Your task to perform on an android device: Show me recent news Image 0: 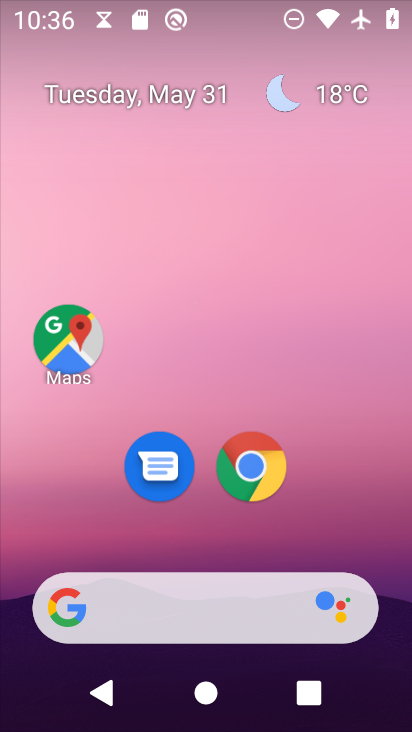
Step 0: drag from (338, 493) to (173, 8)
Your task to perform on an android device: Show me recent news Image 1: 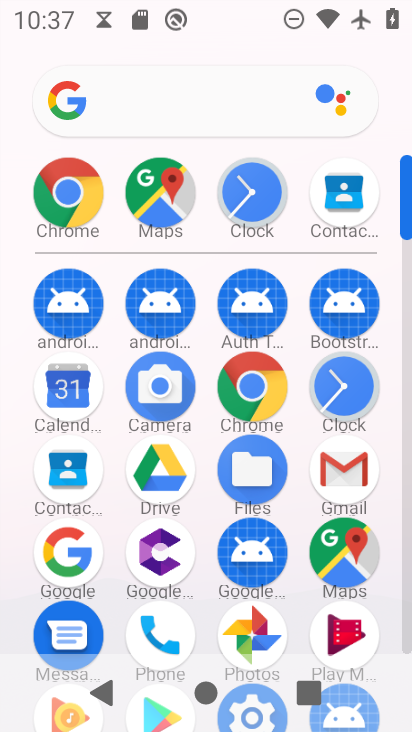
Step 1: drag from (16, 515) to (22, 223)
Your task to perform on an android device: Show me recent news Image 2: 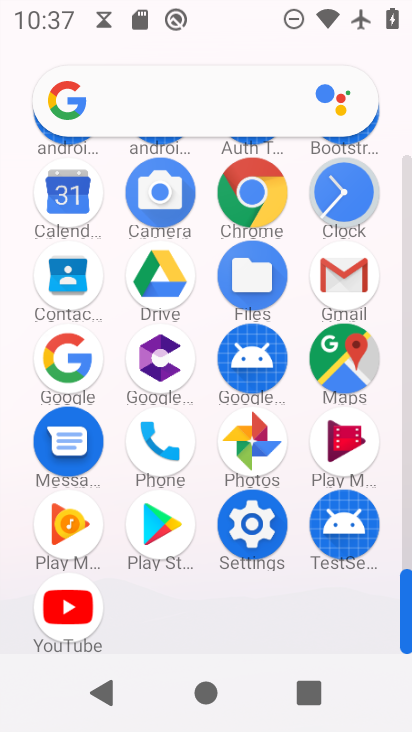
Step 2: click (253, 187)
Your task to perform on an android device: Show me recent news Image 3: 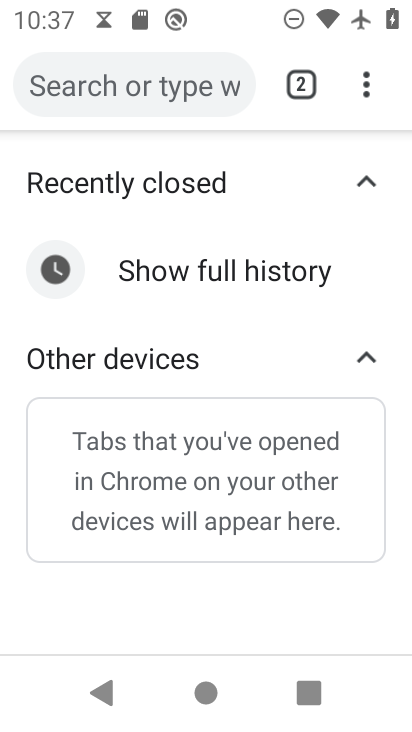
Step 3: click (161, 69)
Your task to perform on an android device: Show me recent news Image 4: 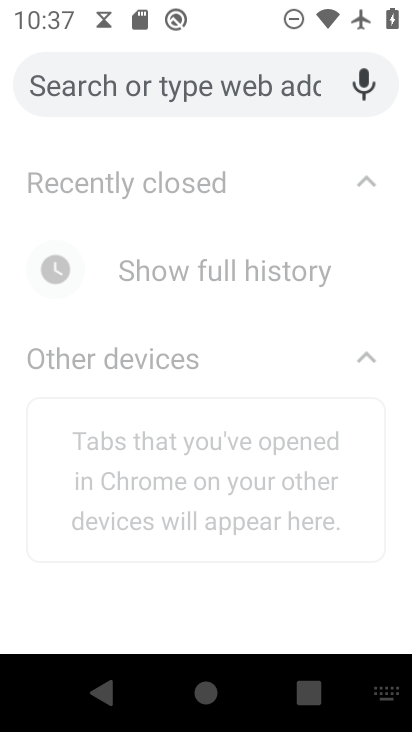
Step 4: type "Show me recent news"
Your task to perform on an android device: Show me recent news Image 5: 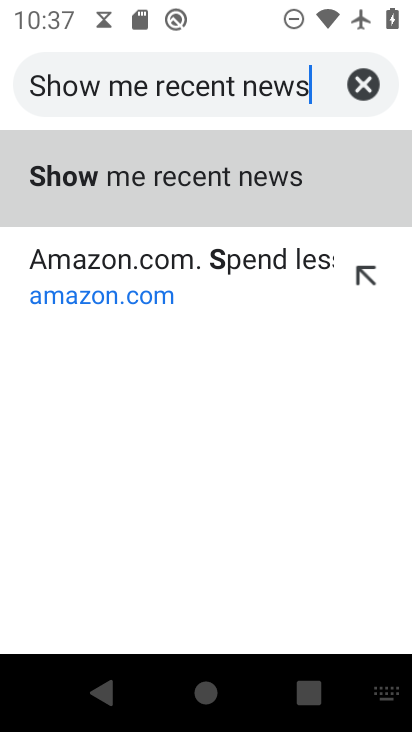
Step 5: type ""
Your task to perform on an android device: Show me recent news Image 6: 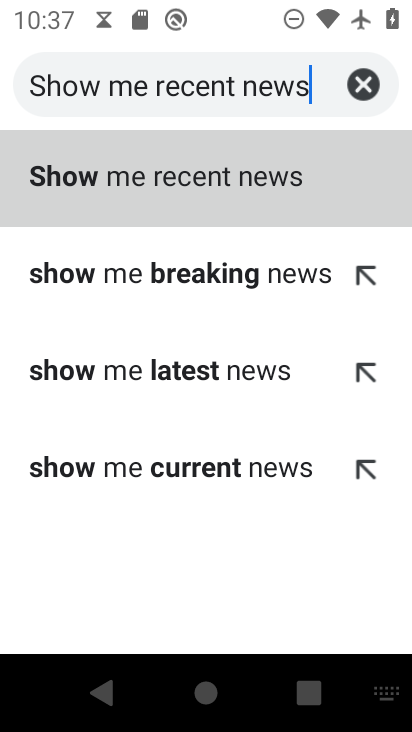
Step 6: click (234, 201)
Your task to perform on an android device: Show me recent news Image 7: 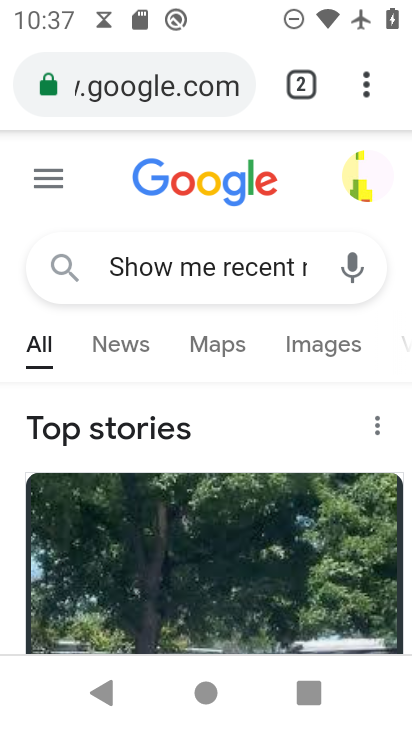
Step 7: task complete